Your task to perform on an android device: What's on my calendar tomorrow? Image 0: 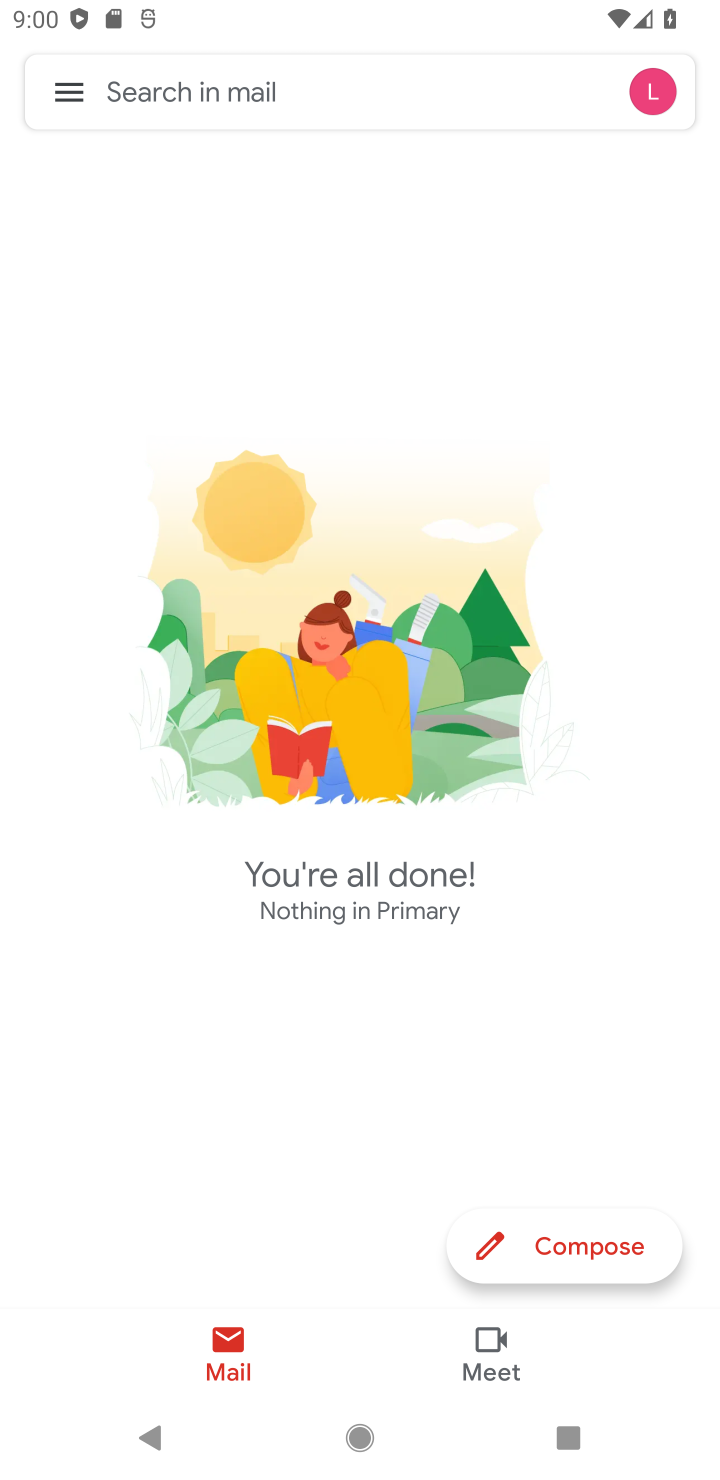
Step 0: press home button
Your task to perform on an android device: What's on my calendar tomorrow? Image 1: 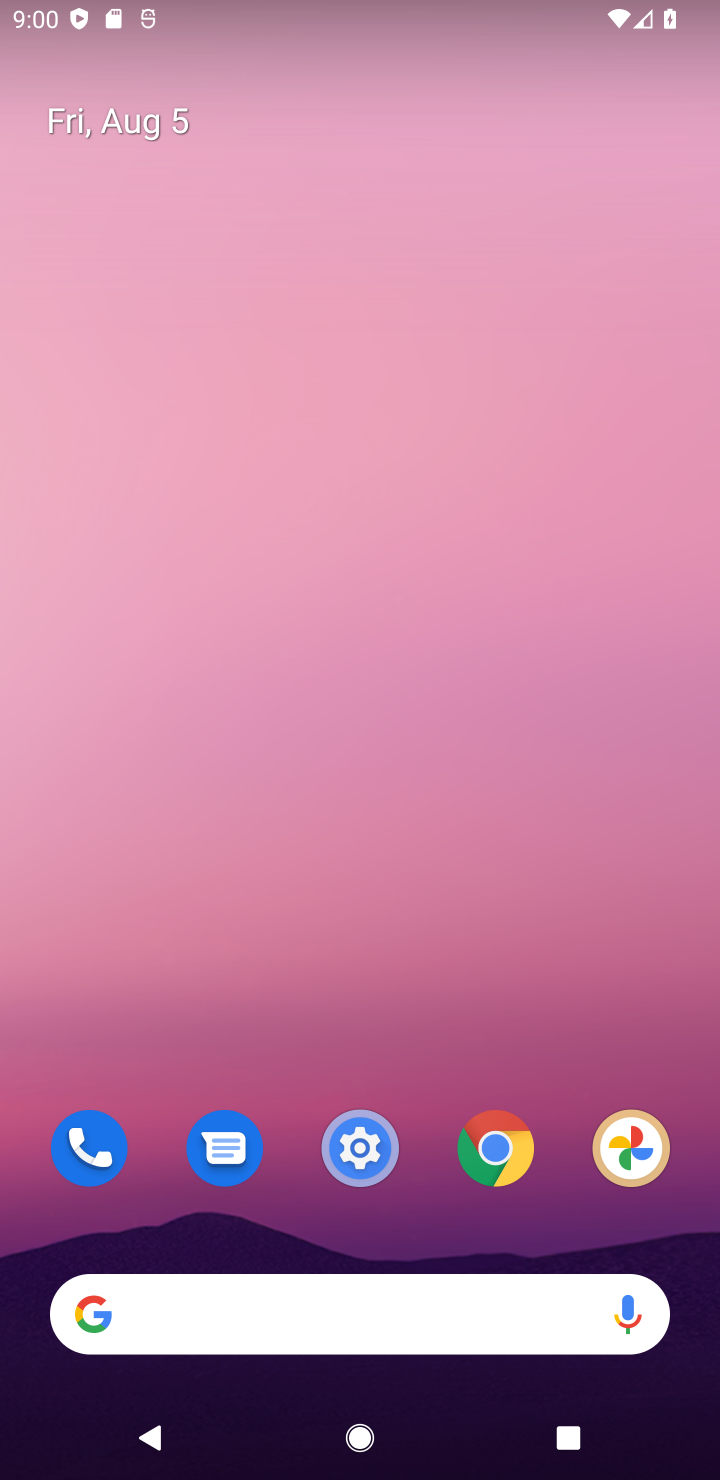
Step 1: drag from (351, 1253) to (363, 120)
Your task to perform on an android device: What's on my calendar tomorrow? Image 2: 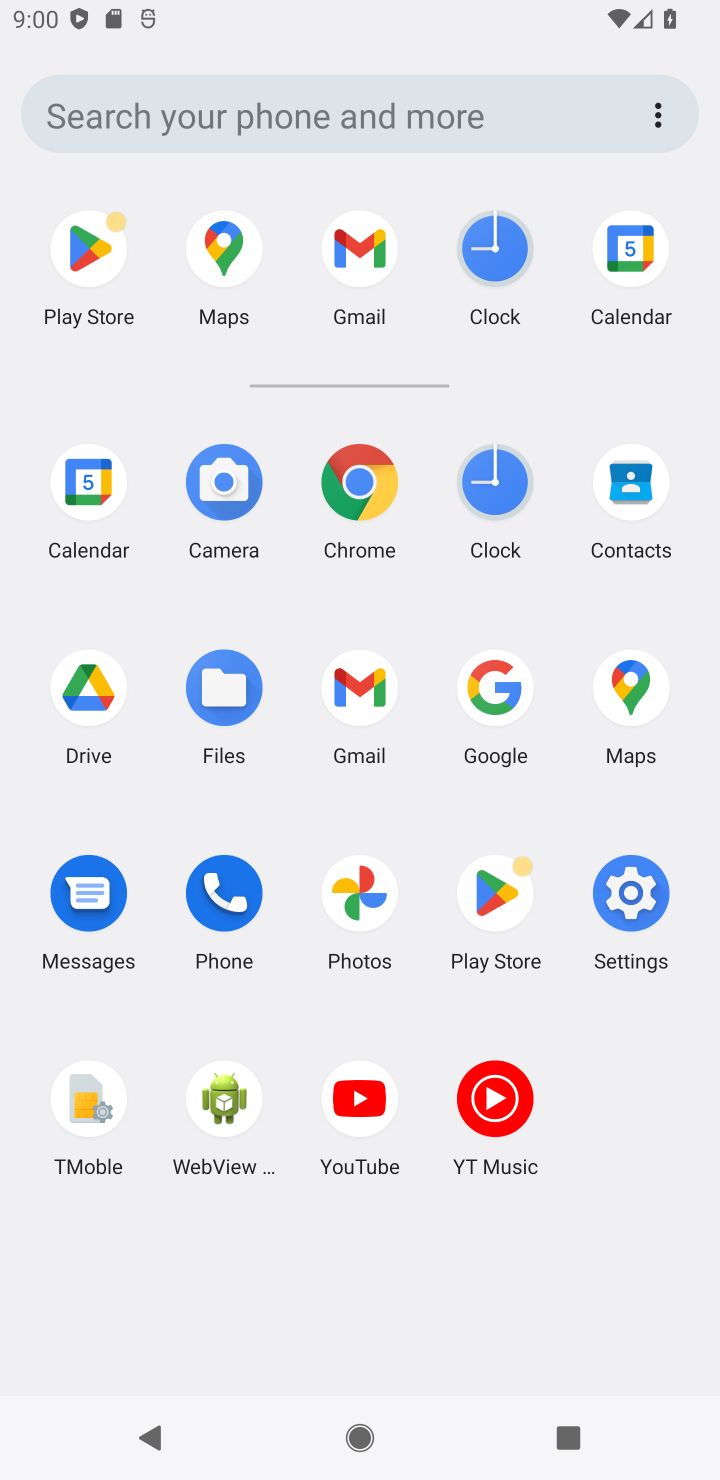
Step 2: click (610, 364)
Your task to perform on an android device: What's on my calendar tomorrow? Image 3: 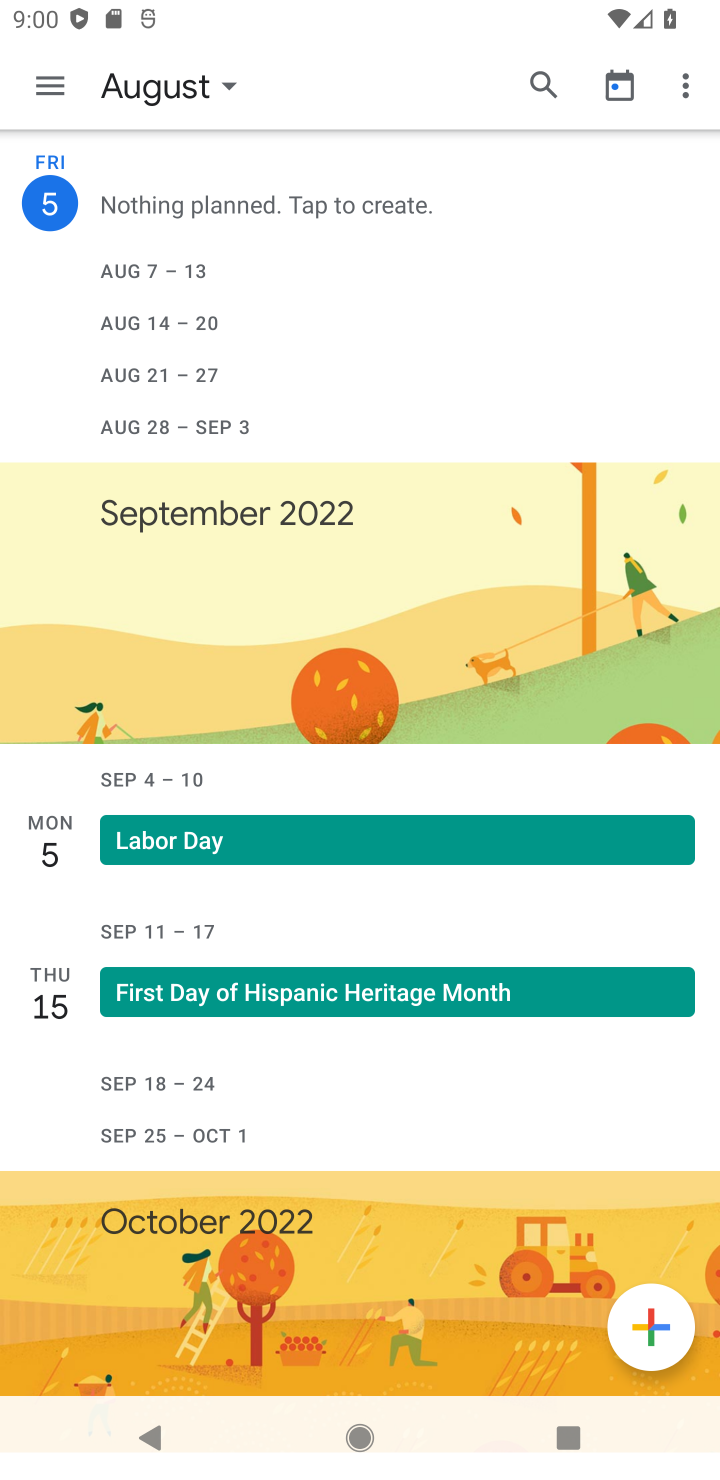
Step 3: task complete